Your task to perform on an android device: turn vacation reply on in the gmail app Image 0: 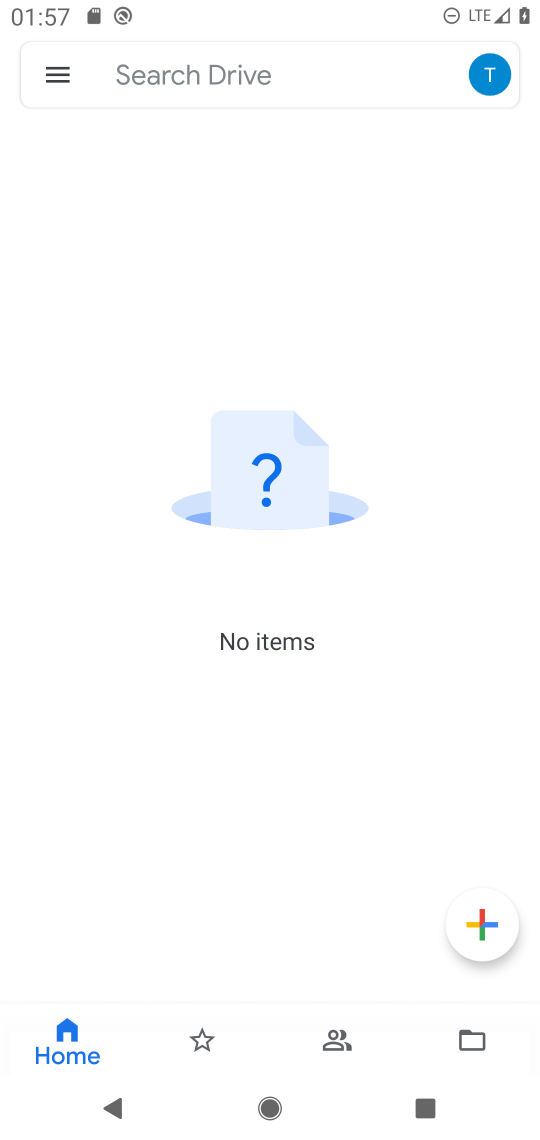
Step 0: press home button
Your task to perform on an android device: turn vacation reply on in the gmail app Image 1: 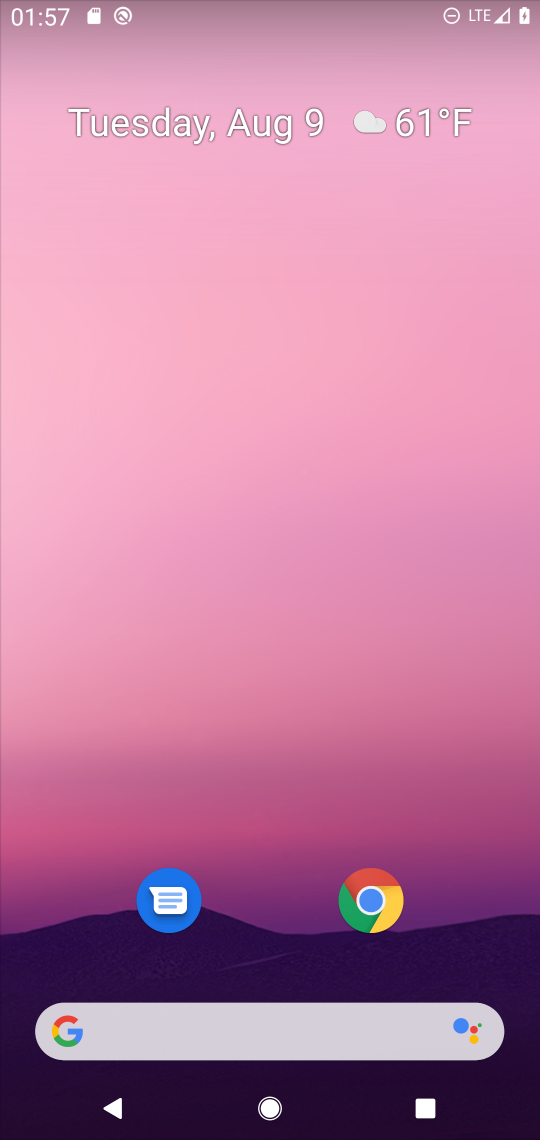
Step 1: drag from (275, 944) to (291, 157)
Your task to perform on an android device: turn vacation reply on in the gmail app Image 2: 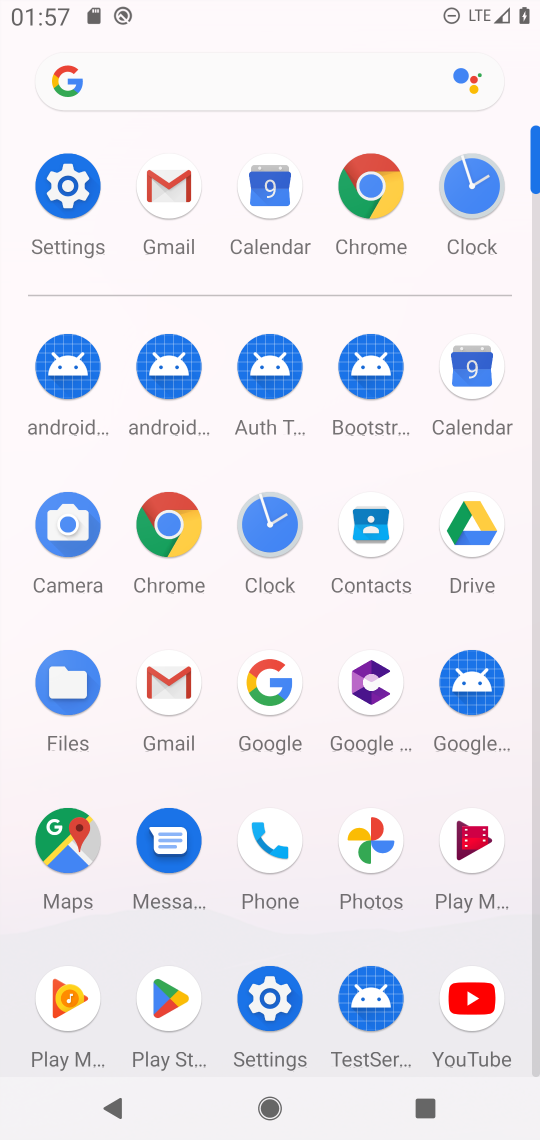
Step 2: click (174, 686)
Your task to perform on an android device: turn vacation reply on in the gmail app Image 3: 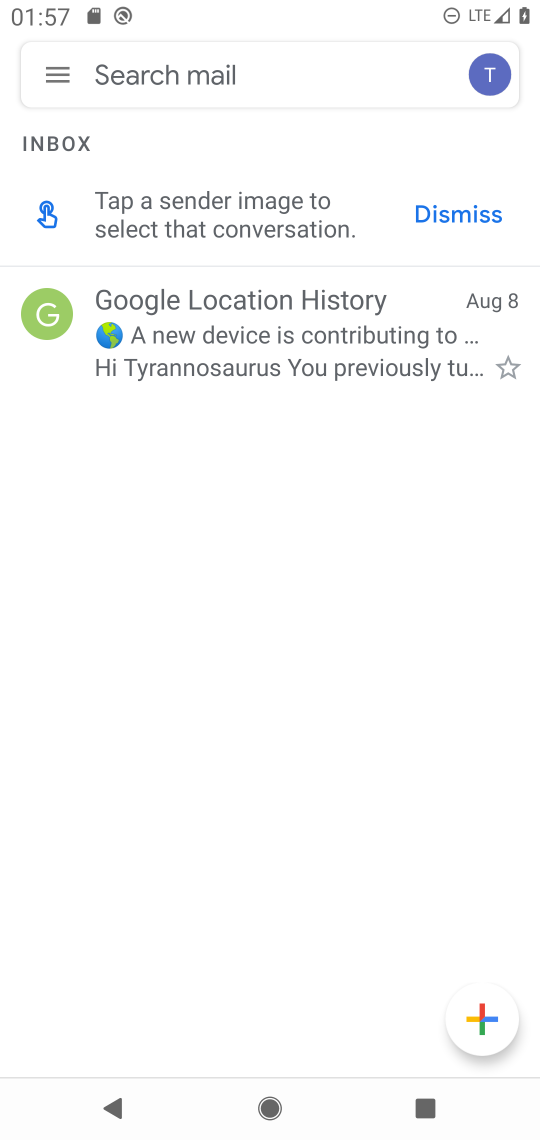
Step 3: click (53, 73)
Your task to perform on an android device: turn vacation reply on in the gmail app Image 4: 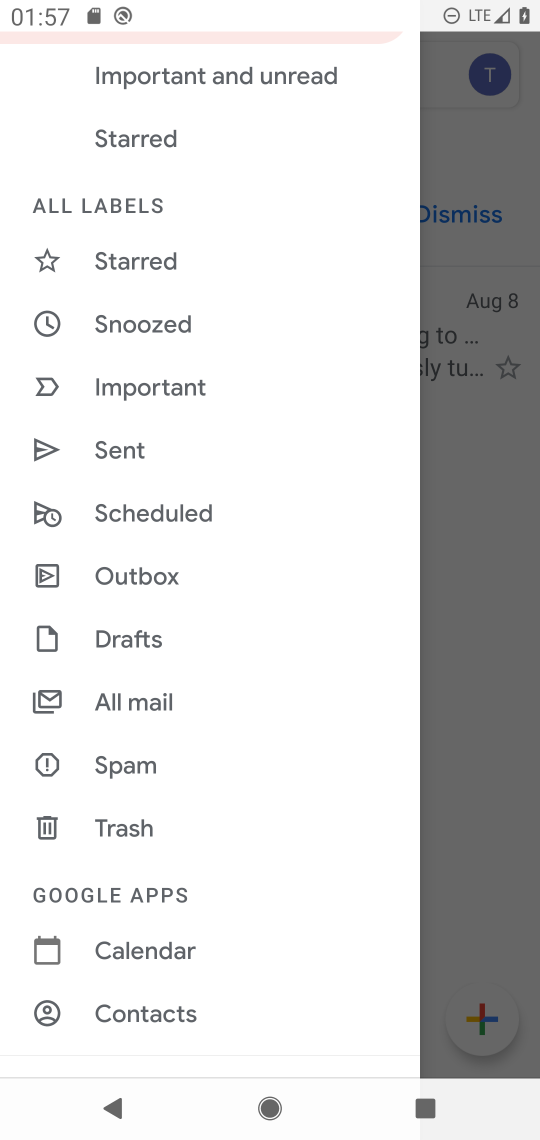
Step 4: drag from (308, 691) to (314, 473)
Your task to perform on an android device: turn vacation reply on in the gmail app Image 5: 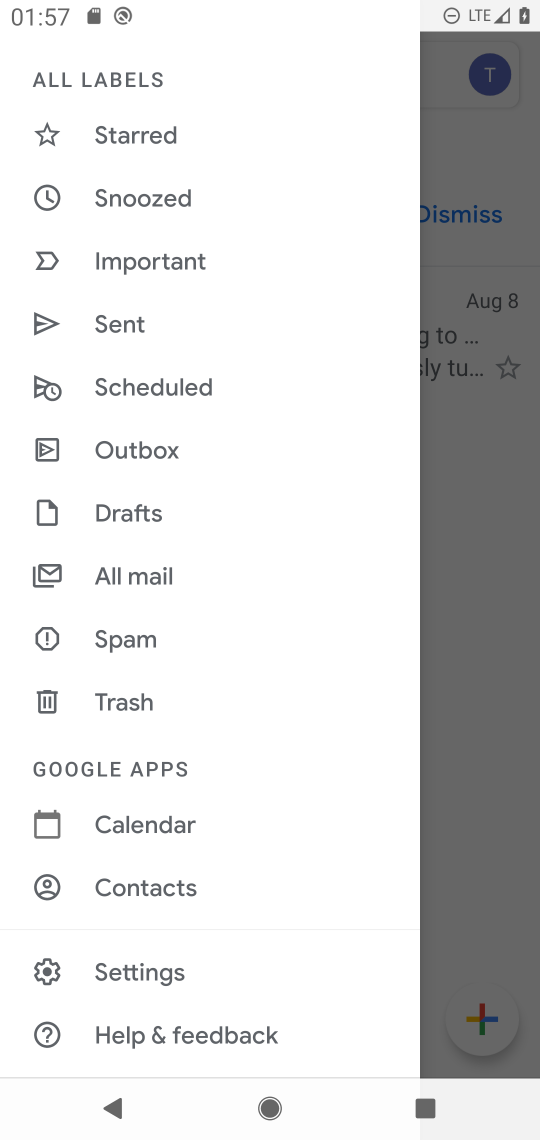
Step 5: click (149, 956)
Your task to perform on an android device: turn vacation reply on in the gmail app Image 6: 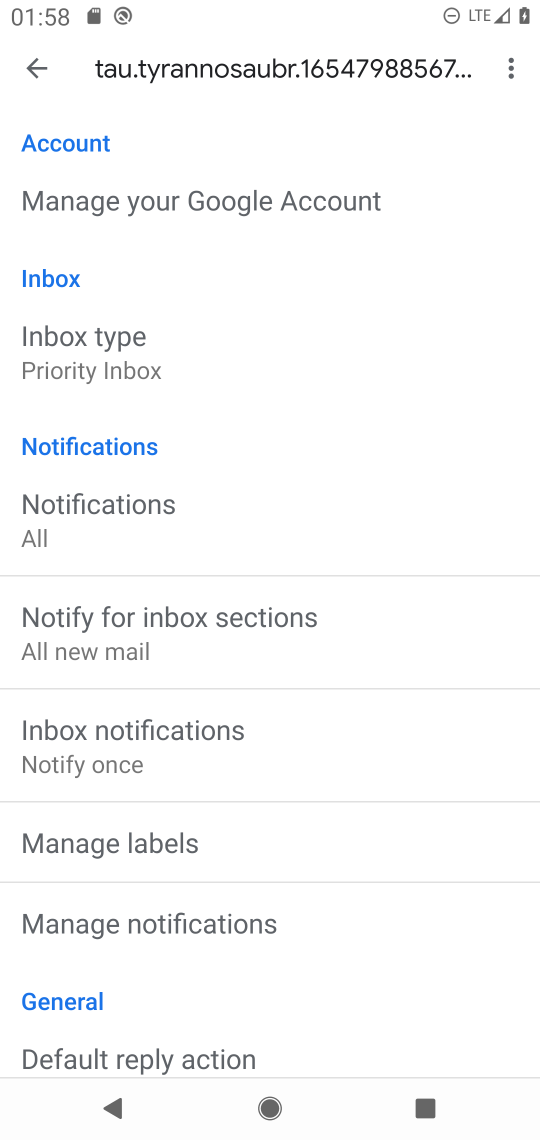
Step 6: drag from (421, 687) to (448, 367)
Your task to perform on an android device: turn vacation reply on in the gmail app Image 7: 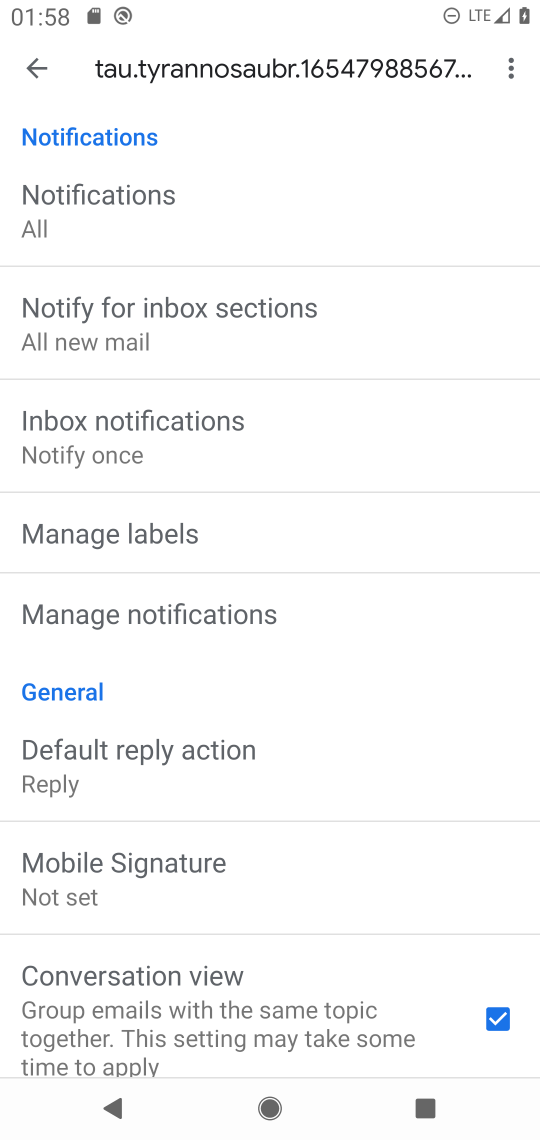
Step 7: drag from (353, 876) to (395, 517)
Your task to perform on an android device: turn vacation reply on in the gmail app Image 8: 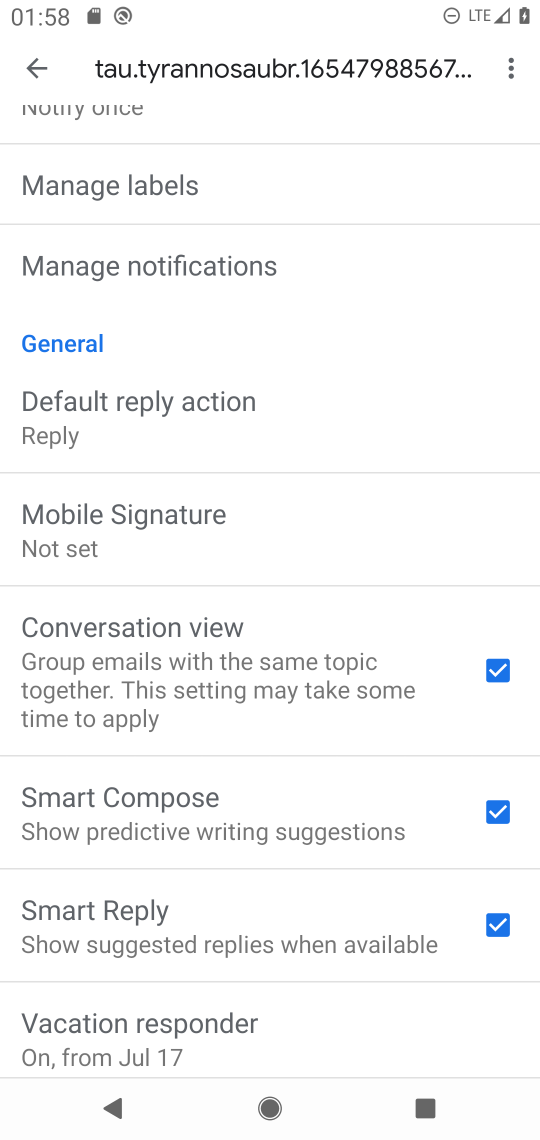
Step 8: drag from (379, 856) to (395, 491)
Your task to perform on an android device: turn vacation reply on in the gmail app Image 9: 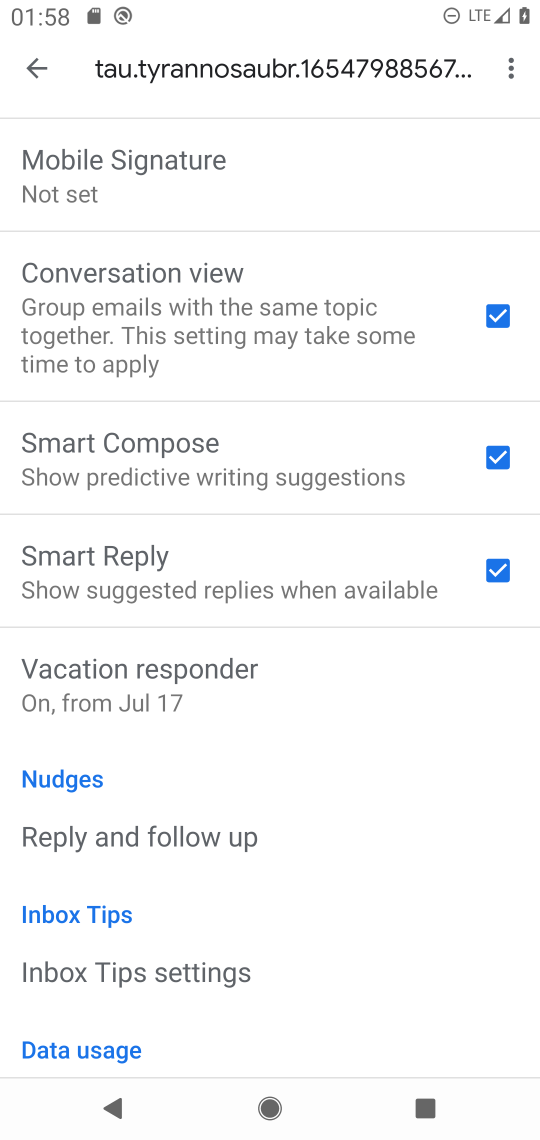
Step 9: drag from (383, 913) to (371, 630)
Your task to perform on an android device: turn vacation reply on in the gmail app Image 10: 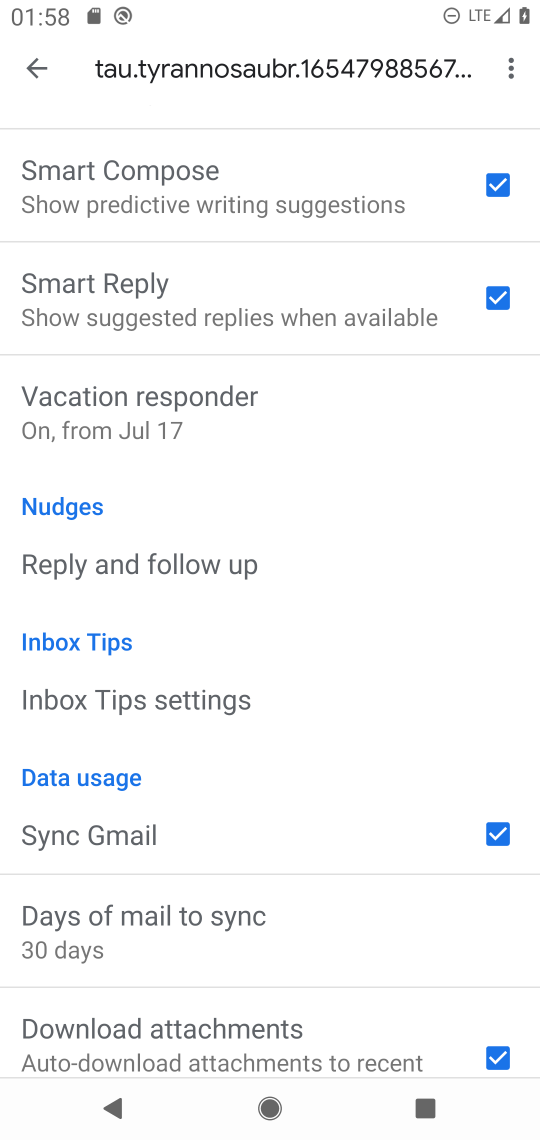
Step 10: click (207, 411)
Your task to perform on an android device: turn vacation reply on in the gmail app Image 11: 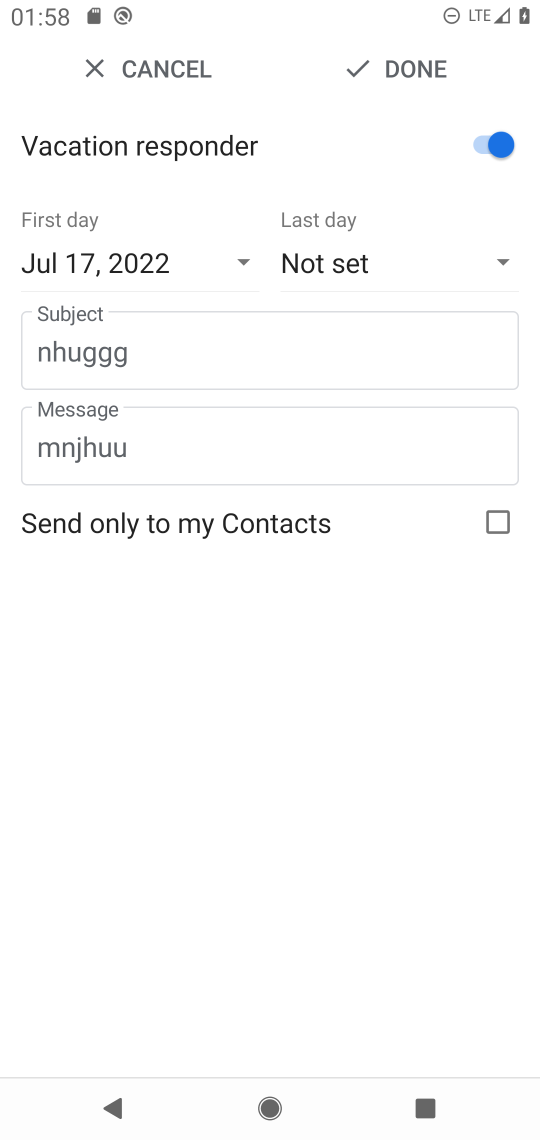
Step 11: task complete